Your task to perform on an android device: What's the weather going to be this weekend? Image 0: 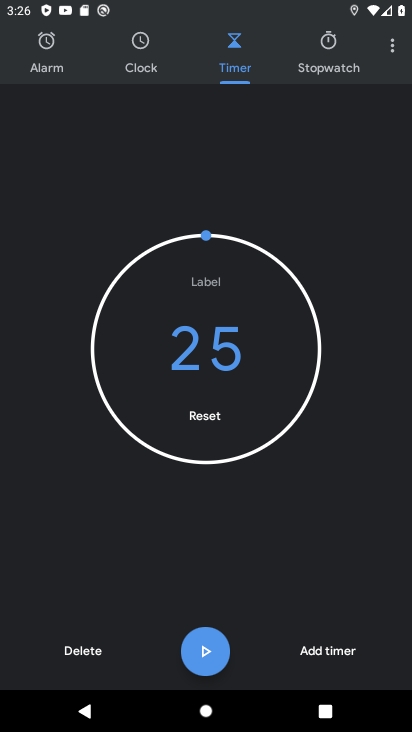
Step 0: press home button
Your task to perform on an android device: What's the weather going to be this weekend? Image 1: 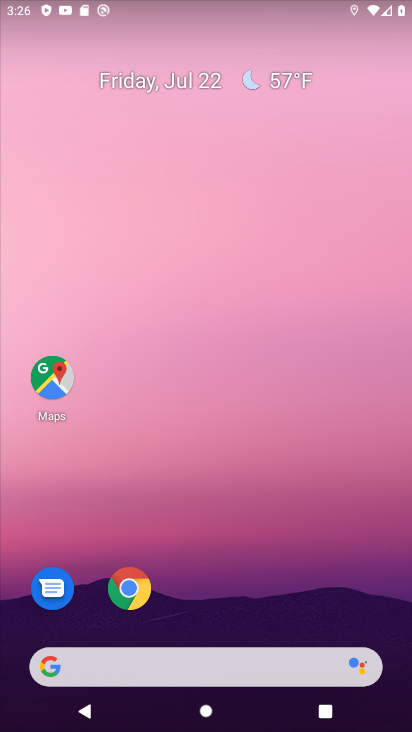
Step 1: drag from (231, 638) to (249, 29)
Your task to perform on an android device: What's the weather going to be this weekend? Image 2: 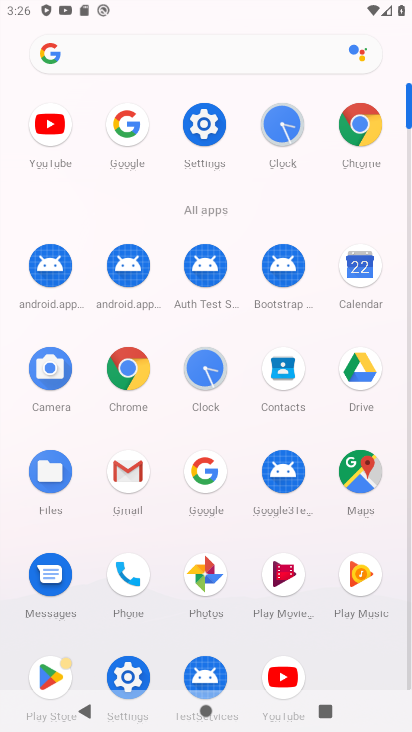
Step 2: click (218, 483)
Your task to perform on an android device: What's the weather going to be this weekend? Image 3: 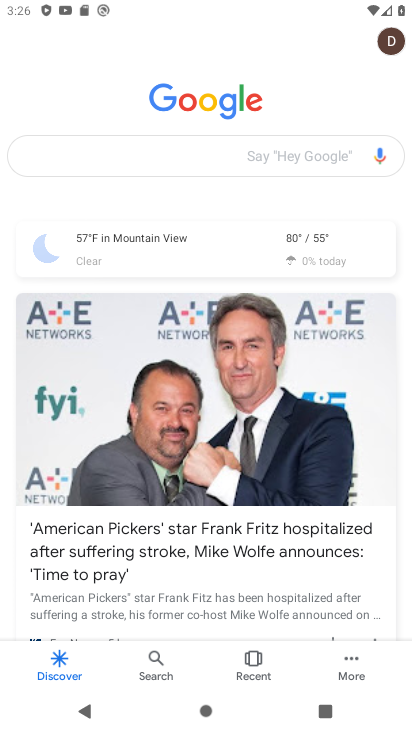
Step 3: click (134, 165)
Your task to perform on an android device: What's the weather going to be this weekend? Image 4: 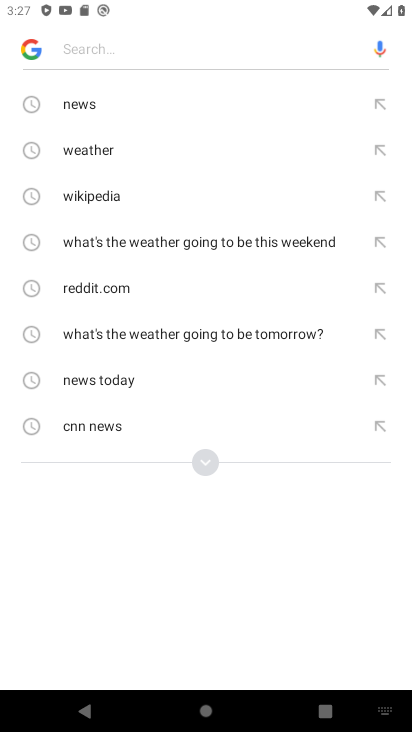
Step 4: click (72, 144)
Your task to perform on an android device: What's the weather going to be this weekend? Image 5: 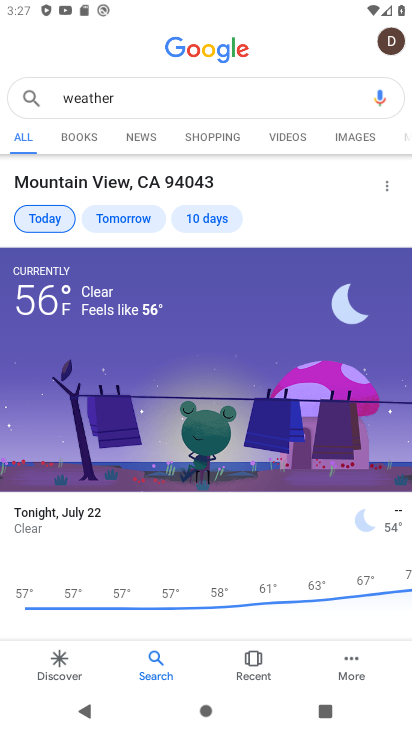
Step 5: task complete